Your task to perform on an android device: Go to sound settings Image 0: 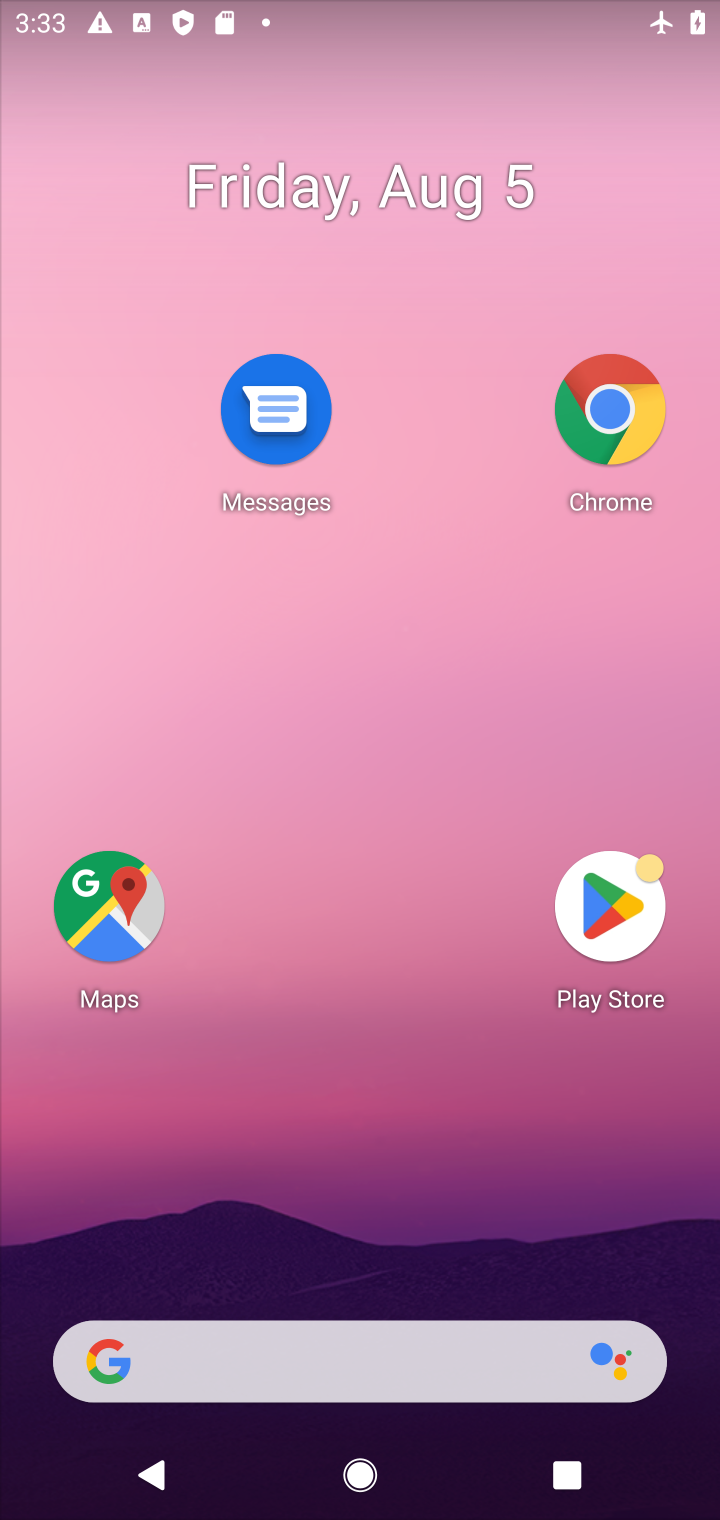
Step 0: drag from (316, 1205) to (366, 395)
Your task to perform on an android device: Go to sound settings Image 1: 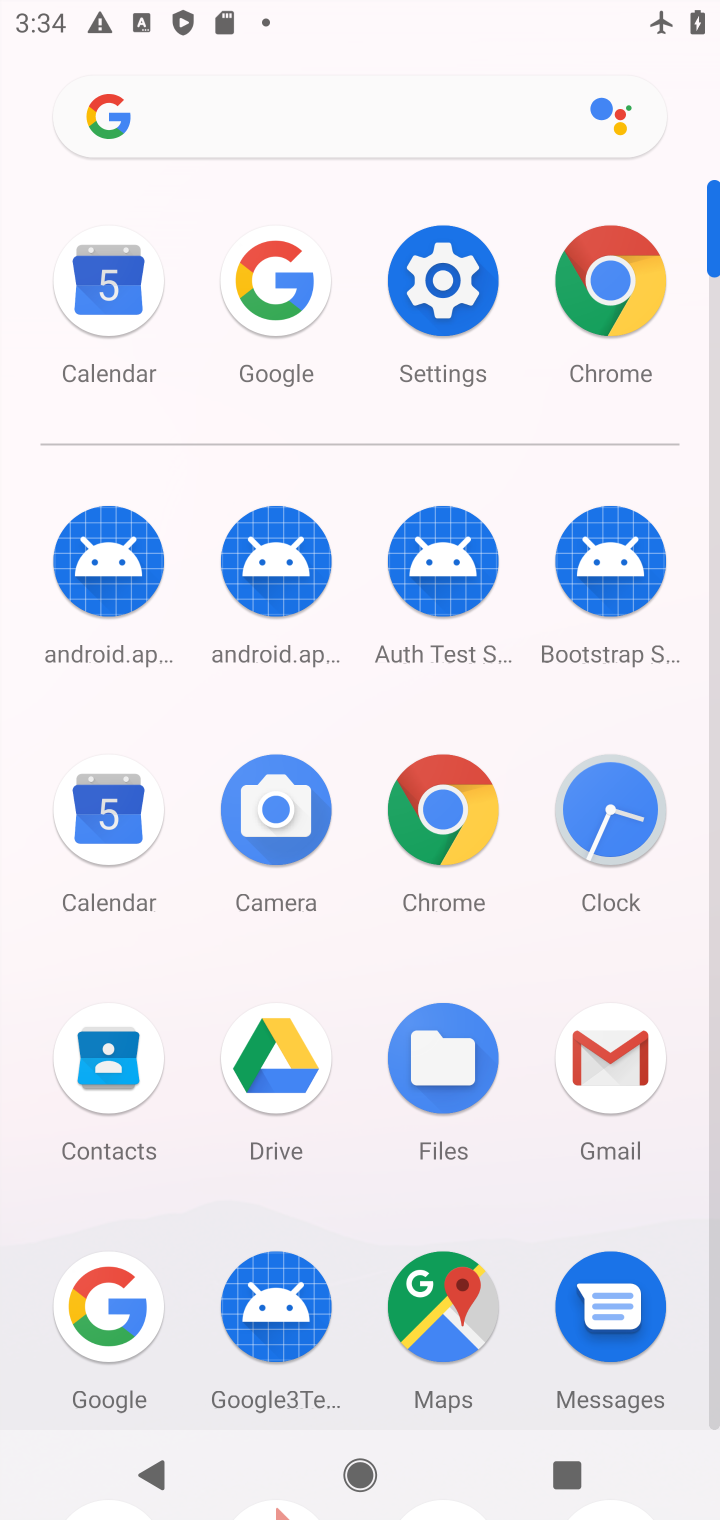
Step 1: click (401, 312)
Your task to perform on an android device: Go to sound settings Image 2: 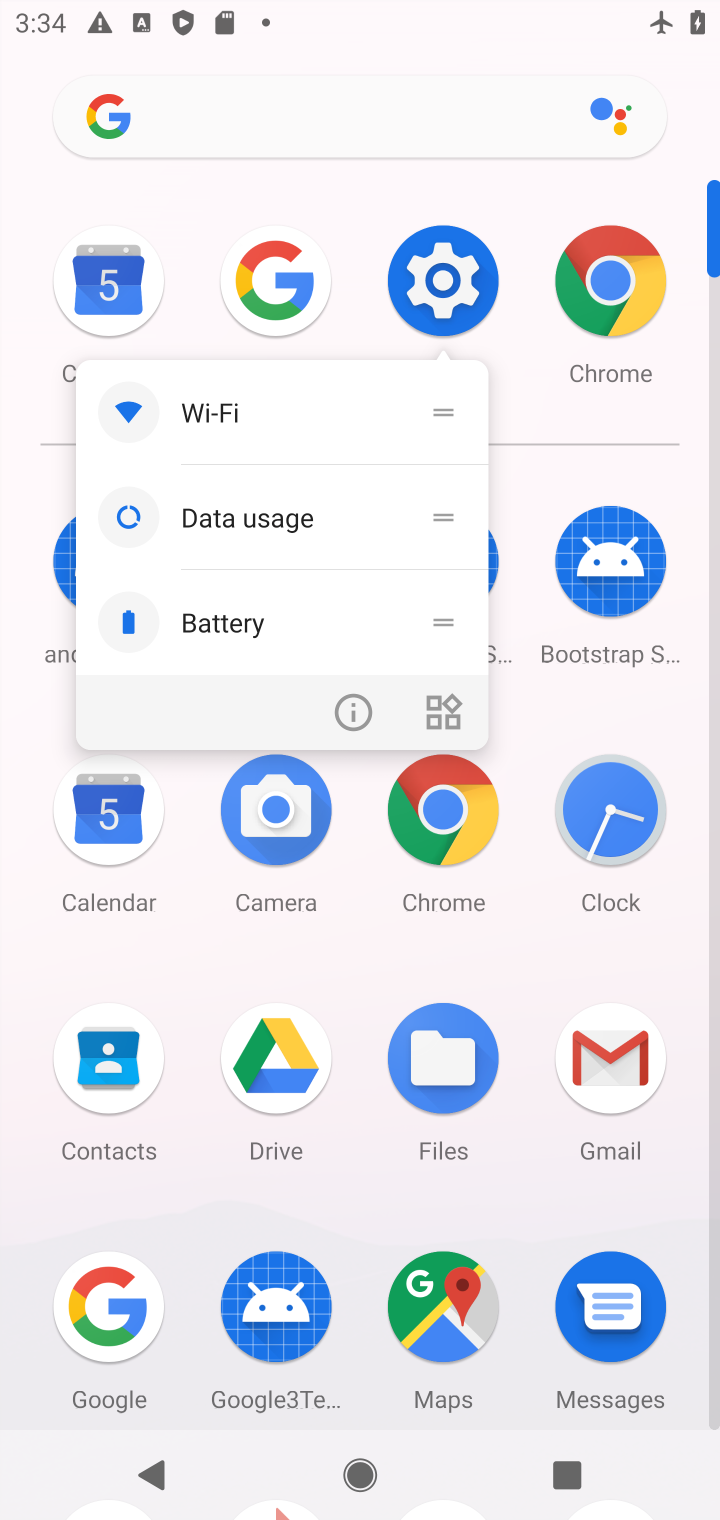
Step 2: click (407, 292)
Your task to perform on an android device: Go to sound settings Image 3: 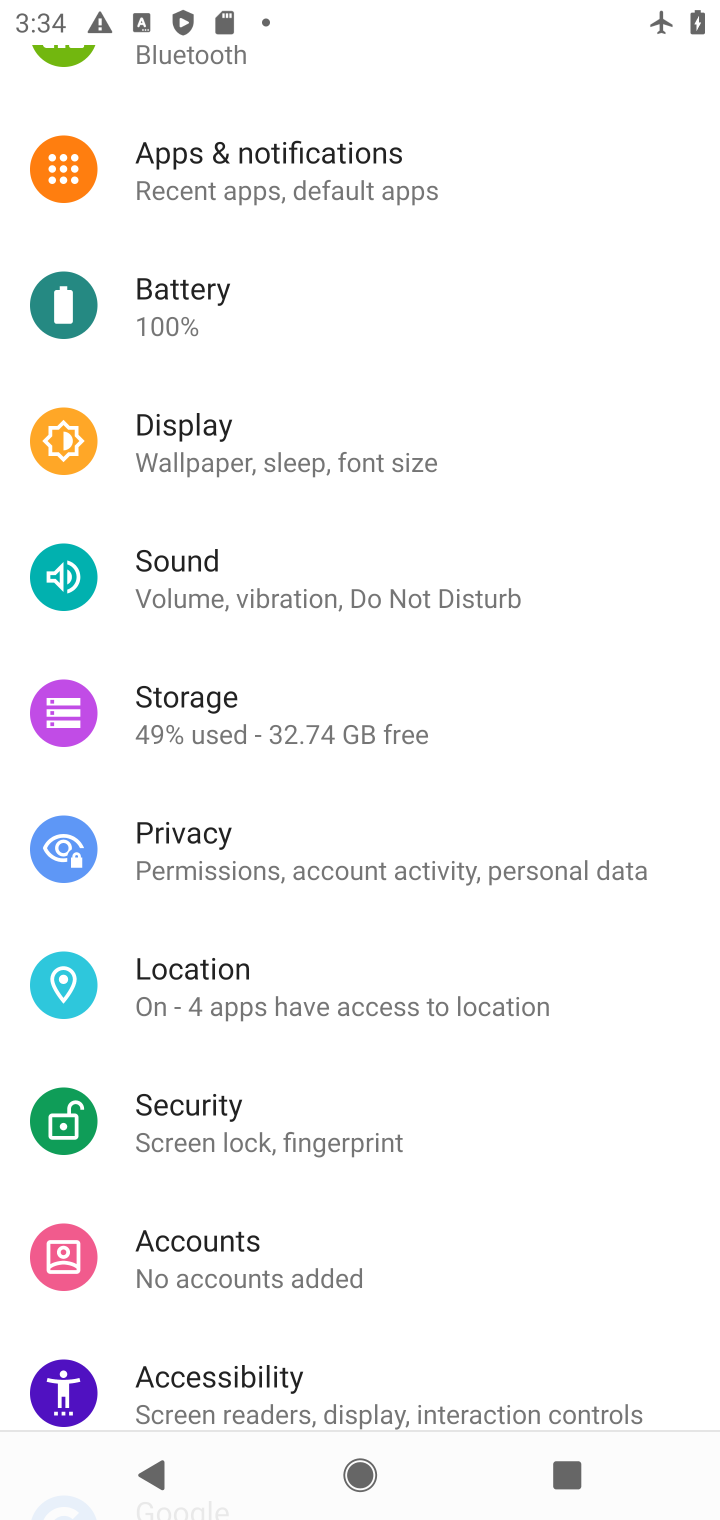
Step 3: click (299, 568)
Your task to perform on an android device: Go to sound settings Image 4: 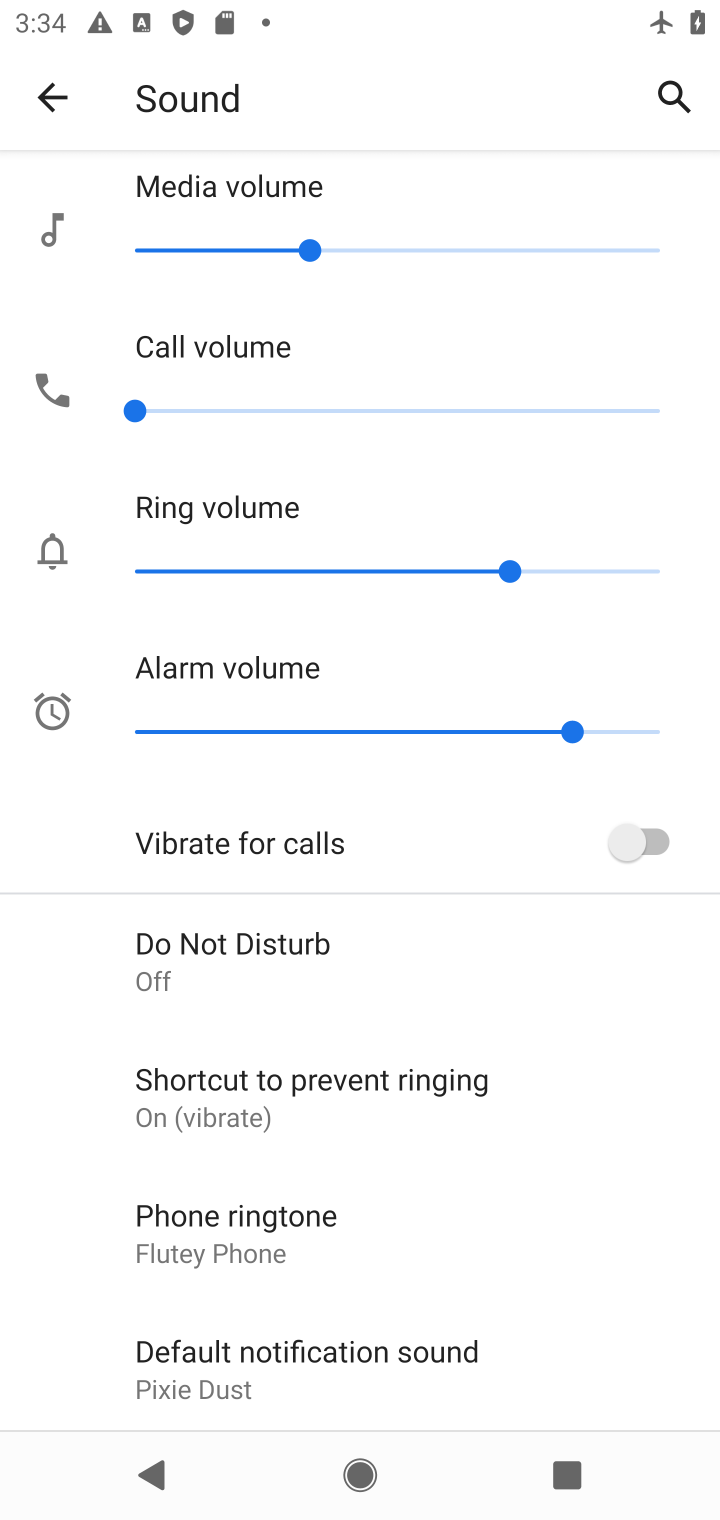
Step 4: task complete